Your task to perform on an android device: set an alarm Image 0: 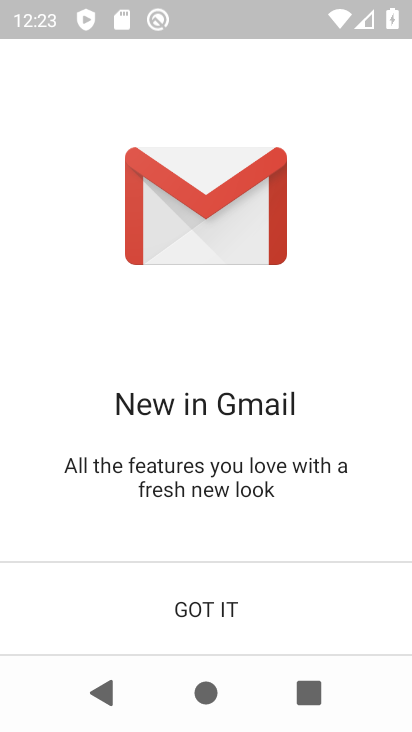
Step 0: press home button
Your task to perform on an android device: set an alarm Image 1: 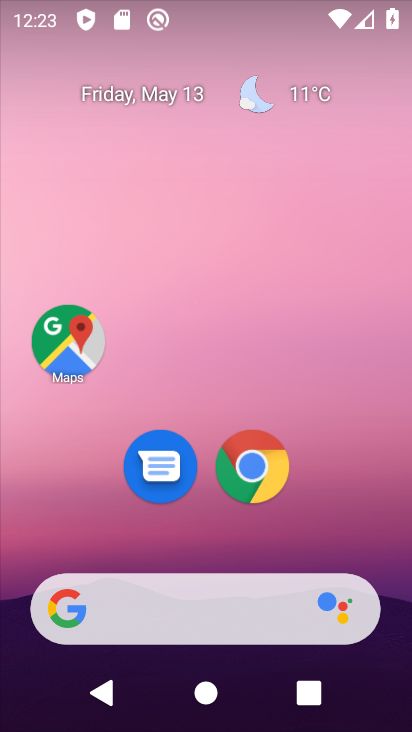
Step 1: drag from (334, 500) to (260, 105)
Your task to perform on an android device: set an alarm Image 2: 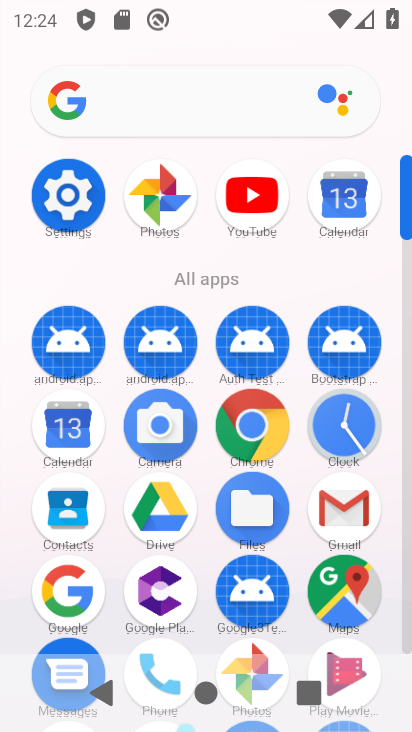
Step 2: click (342, 421)
Your task to perform on an android device: set an alarm Image 3: 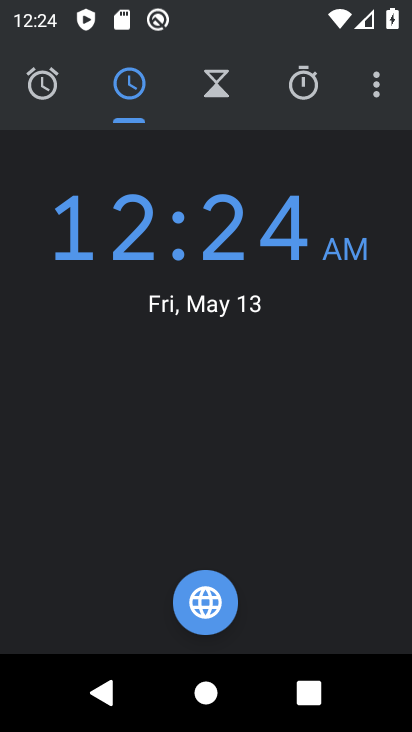
Step 3: click (60, 93)
Your task to perform on an android device: set an alarm Image 4: 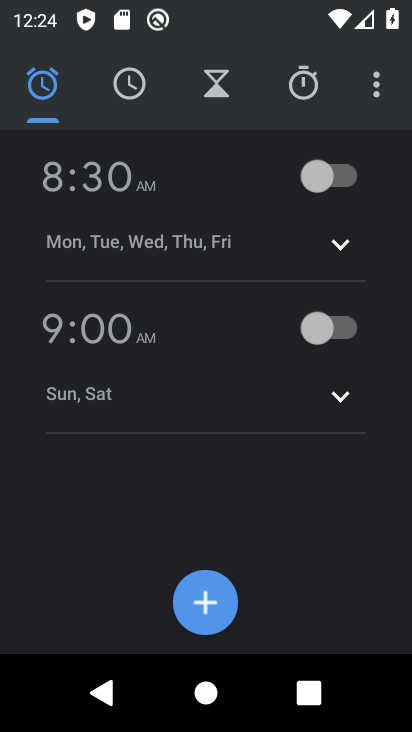
Step 4: click (200, 598)
Your task to perform on an android device: set an alarm Image 5: 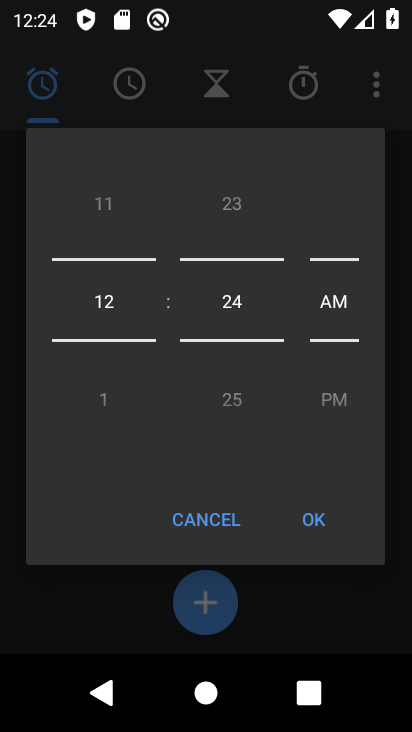
Step 5: click (310, 521)
Your task to perform on an android device: set an alarm Image 6: 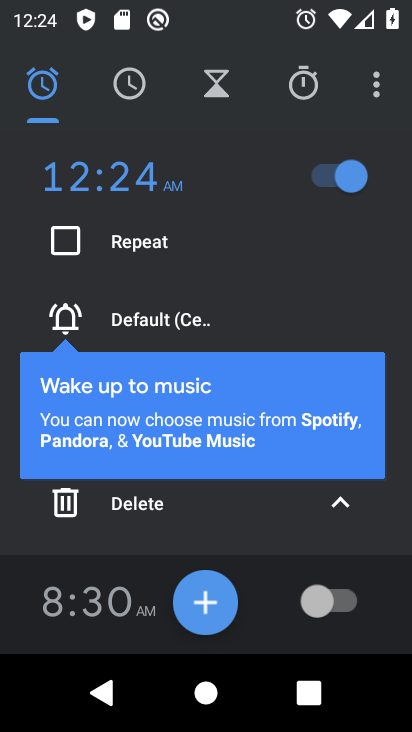
Step 6: task complete